Your task to perform on an android device: Open Reddit.com Image 0: 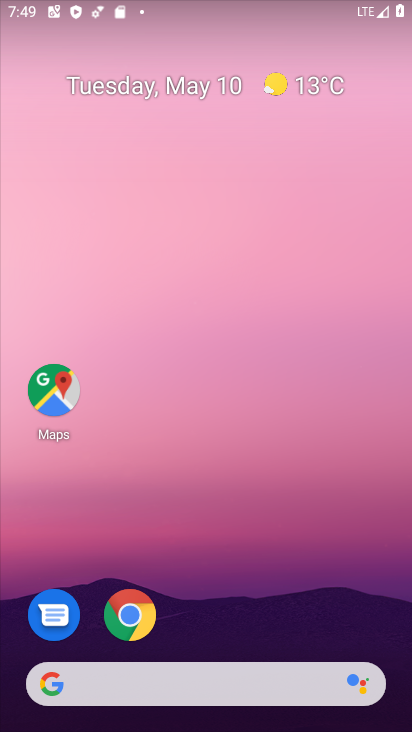
Step 0: drag from (280, 564) to (300, 89)
Your task to perform on an android device: Open Reddit.com Image 1: 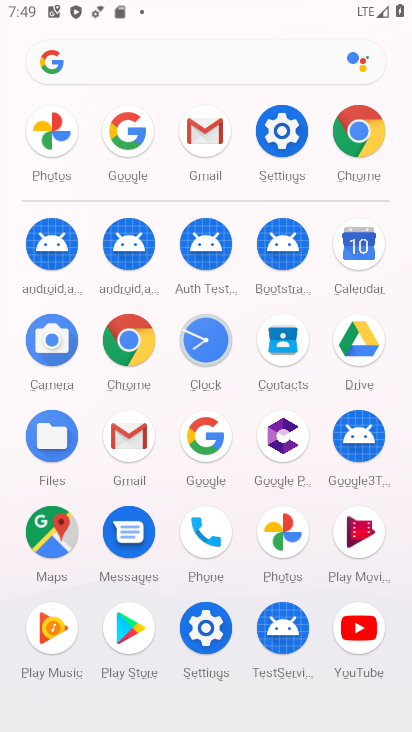
Step 1: click (364, 135)
Your task to perform on an android device: Open Reddit.com Image 2: 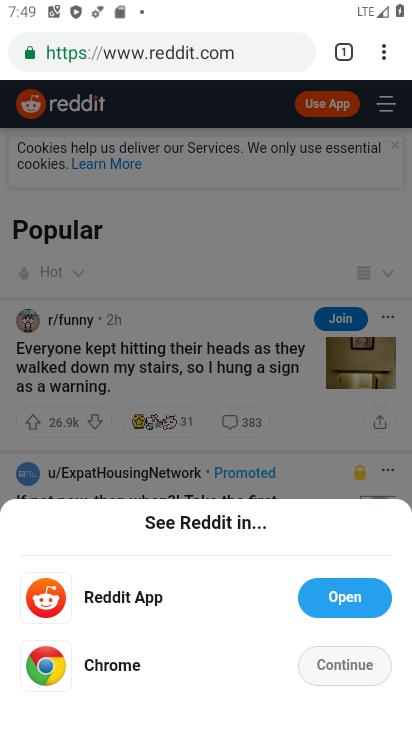
Step 2: task complete